Your task to perform on an android device: turn on data saver in the chrome app Image 0: 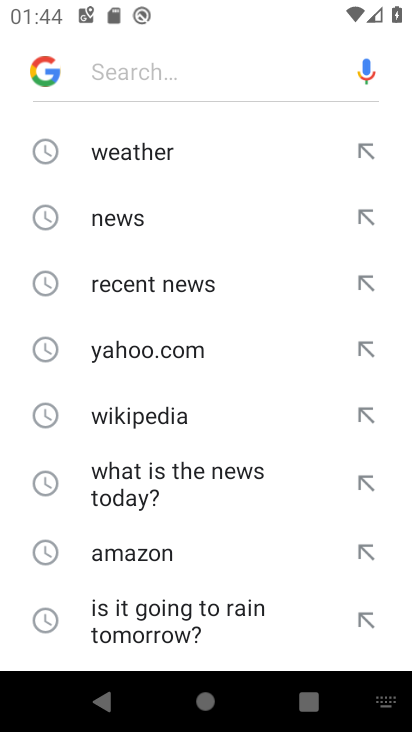
Step 0: press home button
Your task to perform on an android device: turn on data saver in the chrome app Image 1: 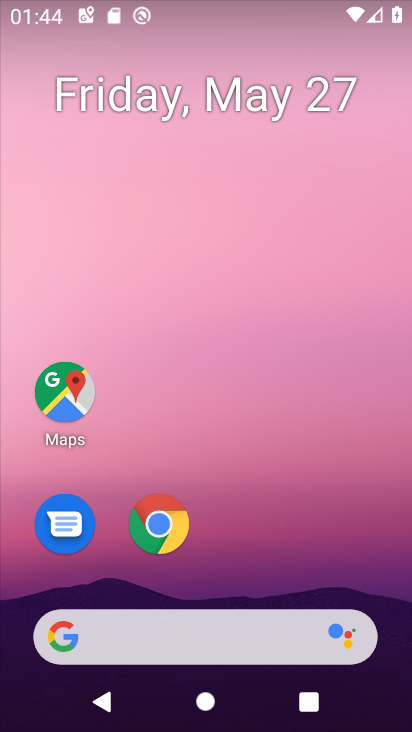
Step 1: drag from (265, 543) to (281, 29)
Your task to perform on an android device: turn on data saver in the chrome app Image 2: 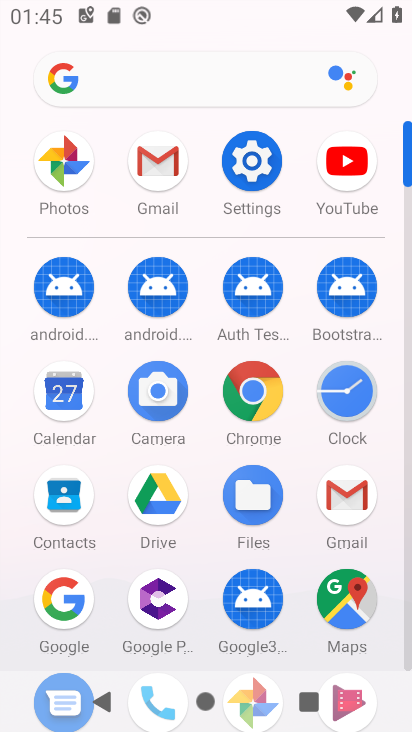
Step 2: click (252, 396)
Your task to perform on an android device: turn on data saver in the chrome app Image 3: 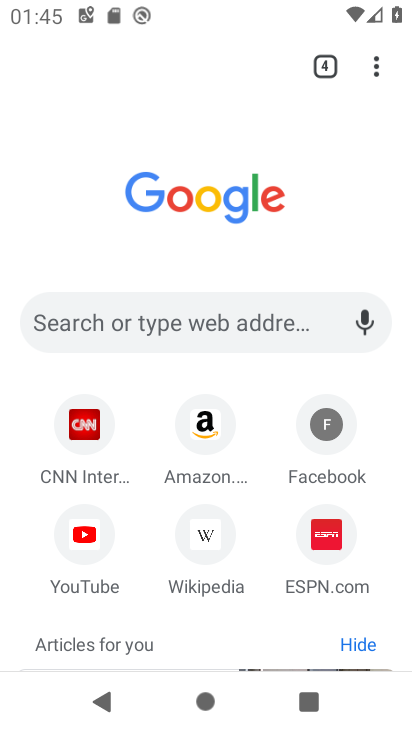
Step 3: click (375, 67)
Your task to perform on an android device: turn on data saver in the chrome app Image 4: 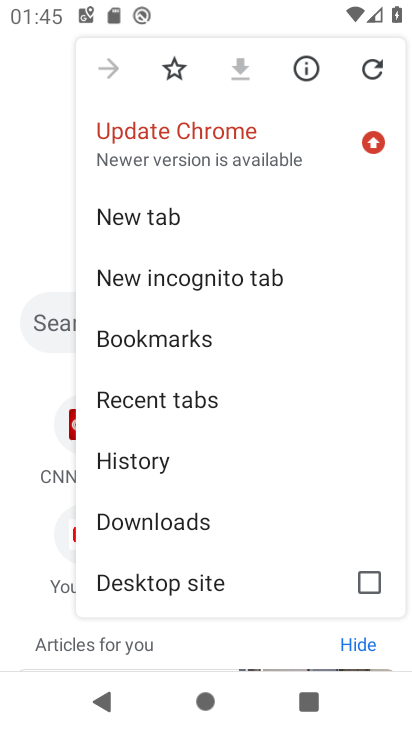
Step 4: drag from (233, 495) to (229, 182)
Your task to perform on an android device: turn on data saver in the chrome app Image 5: 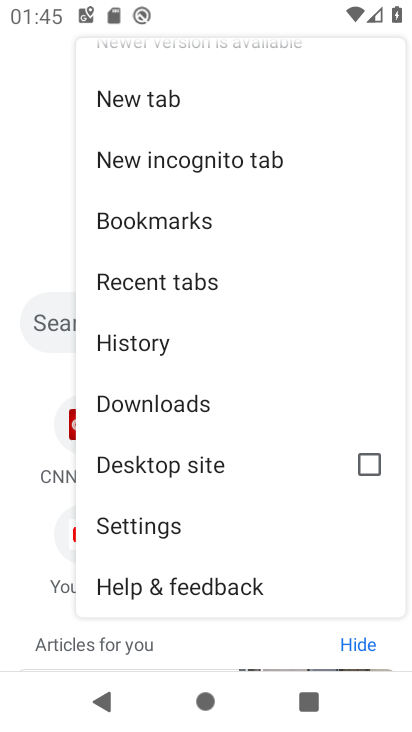
Step 5: click (198, 522)
Your task to perform on an android device: turn on data saver in the chrome app Image 6: 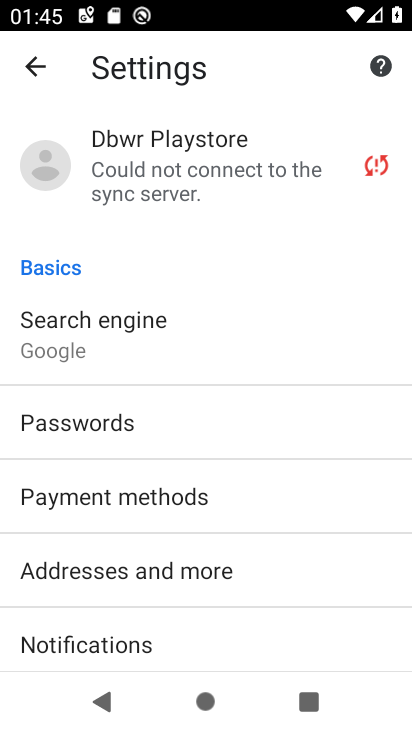
Step 6: drag from (249, 530) to (227, 58)
Your task to perform on an android device: turn on data saver in the chrome app Image 7: 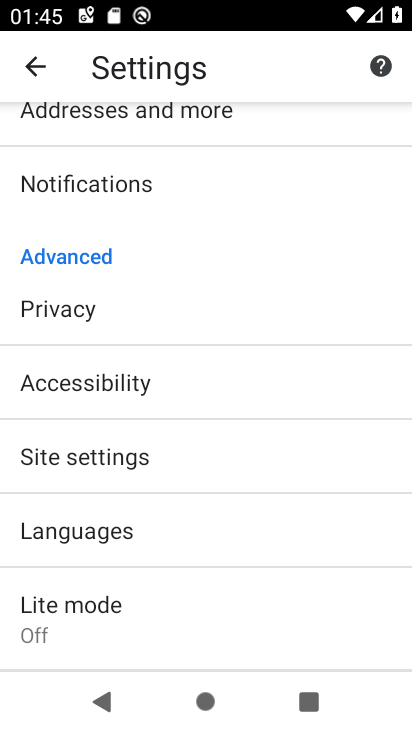
Step 7: click (163, 638)
Your task to perform on an android device: turn on data saver in the chrome app Image 8: 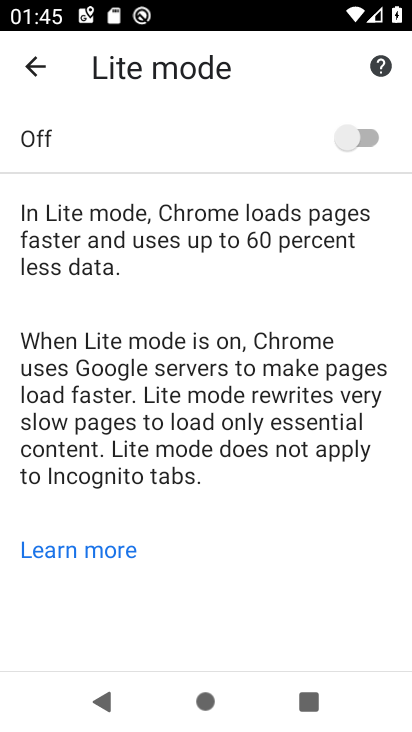
Step 8: click (356, 129)
Your task to perform on an android device: turn on data saver in the chrome app Image 9: 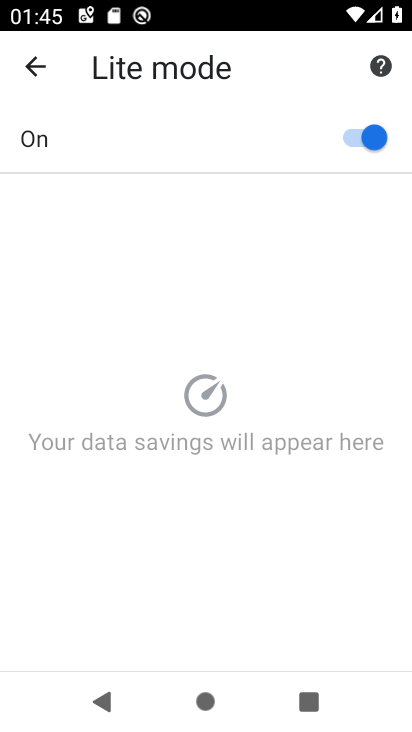
Step 9: task complete